Your task to perform on an android device: Check the weather Image 0: 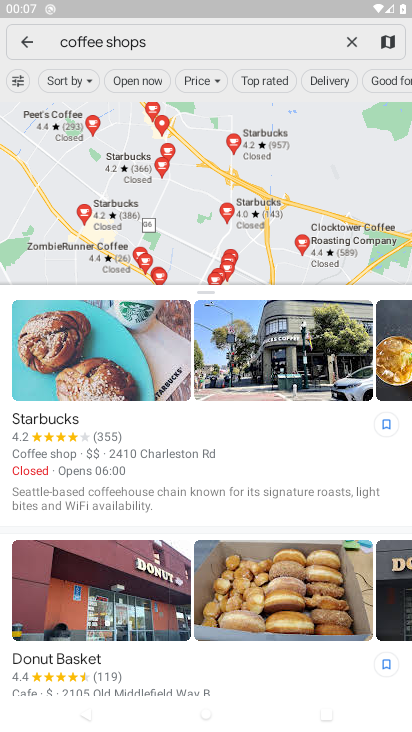
Step 0: press home button
Your task to perform on an android device: Check the weather Image 1: 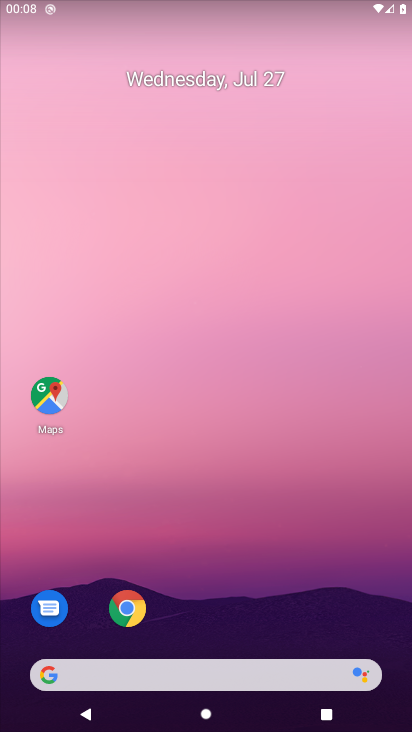
Step 1: click (47, 671)
Your task to perform on an android device: Check the weather Image 2: 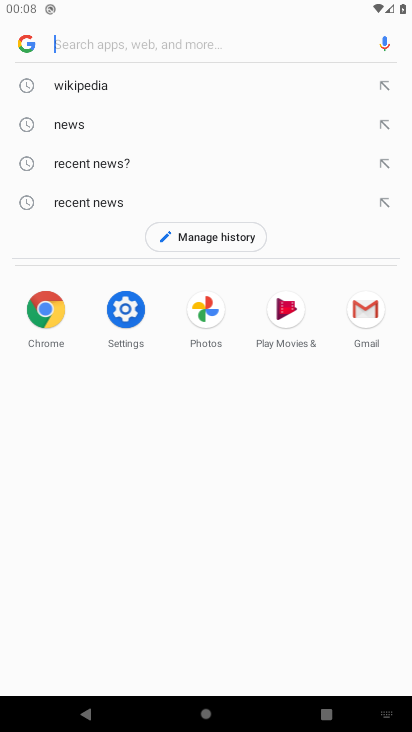
Step 2: type "weather"
Your task to perform on an android device: Check the weather Image 3: 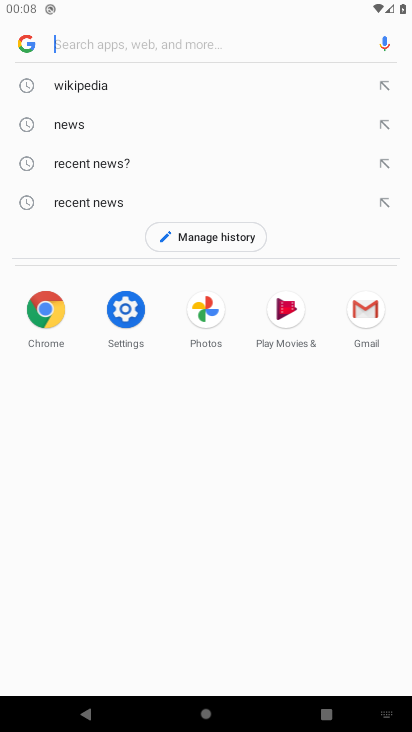
Step 3: click (70, 44)
Your task to perform on an android device: Check the weather Image 4: 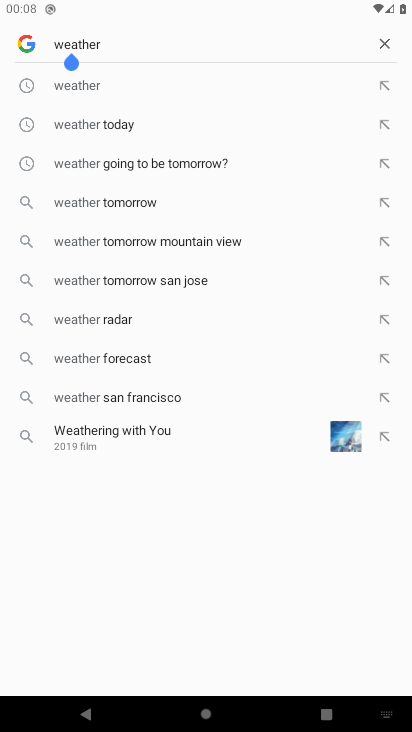
Step 4: press enter
Your task to perform on an android device: Check the weather Image 5: 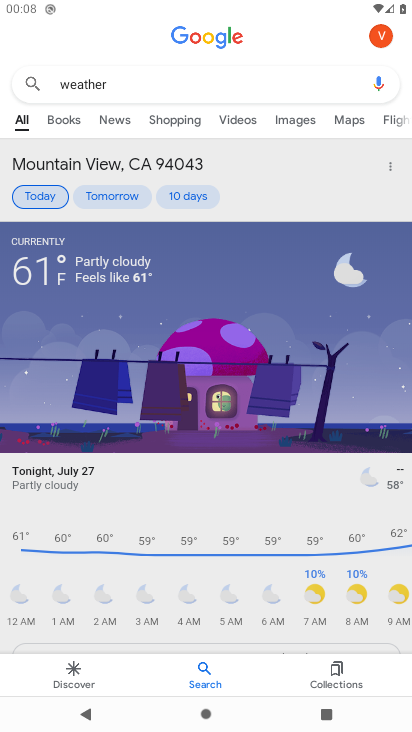
Step 5: task complete